Your task to perform on an android device: delete a single message in the gmail app Image 0: 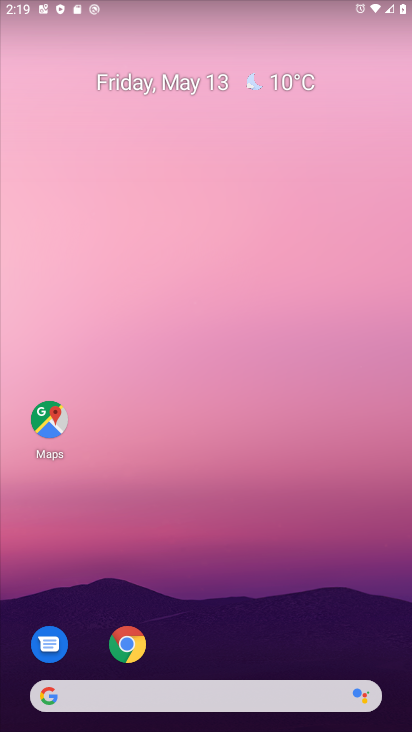
Step 0: drag from (220, 728) to (206, 199)
Your task to perform on an android device: delete a single message in the gmail app Image 1: 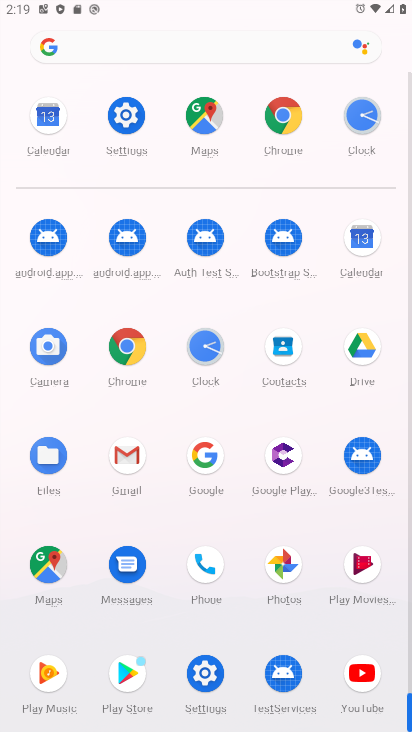
Step 1: click (128, 458)
Your task to perform on an android device: delete a single message in the gmail app Image 2: 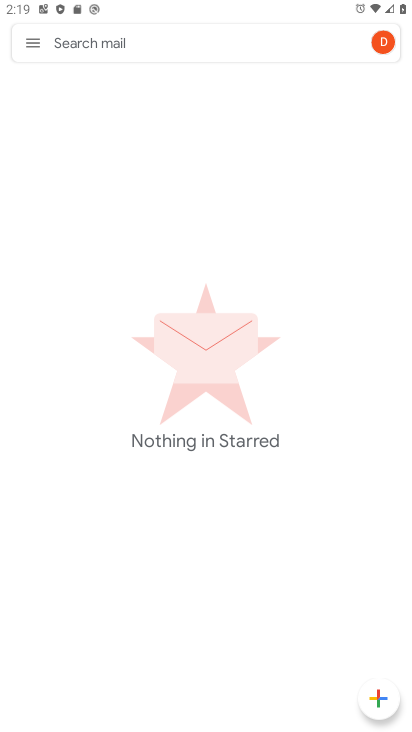
Step 2: task complete